Your task to perform on an android device: Go to Yahoo.com Image 0: 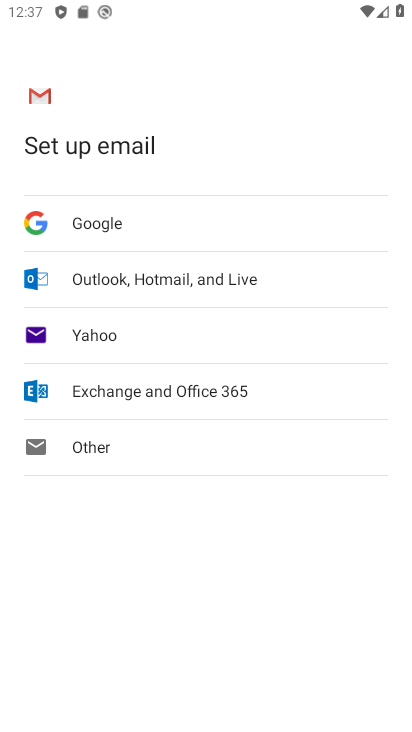
Step 0: press home button
Your task to perform on an android device: Go to Yahoo.com Image 1: 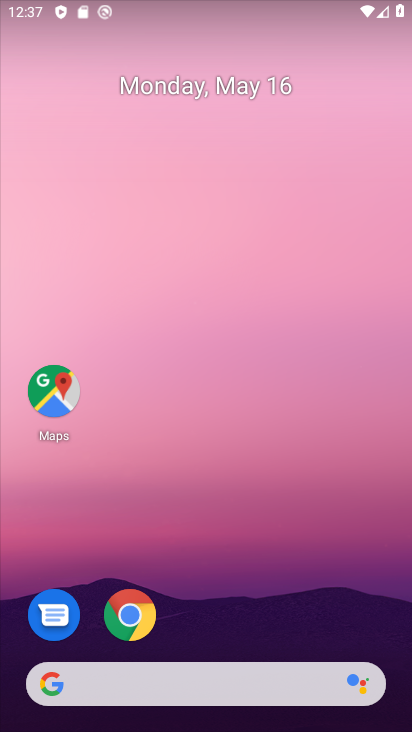
Step 1: click (193, 691)
Your task to perform on an android device: Go to Yahoo.com Image 2: 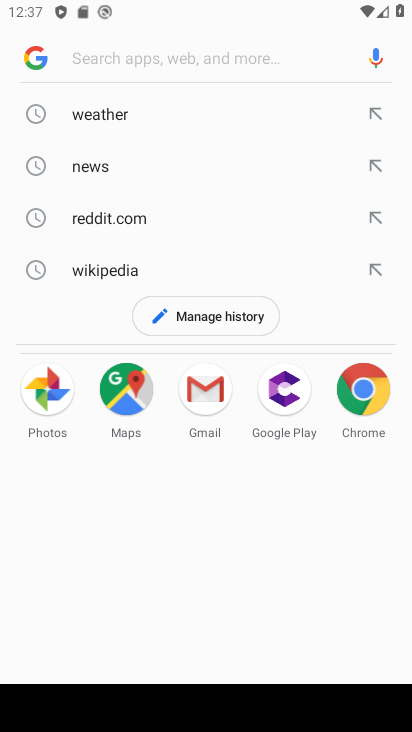
Step 2: press home button
Your task to perform on an android device: Go to Yahoo.com Image 3: 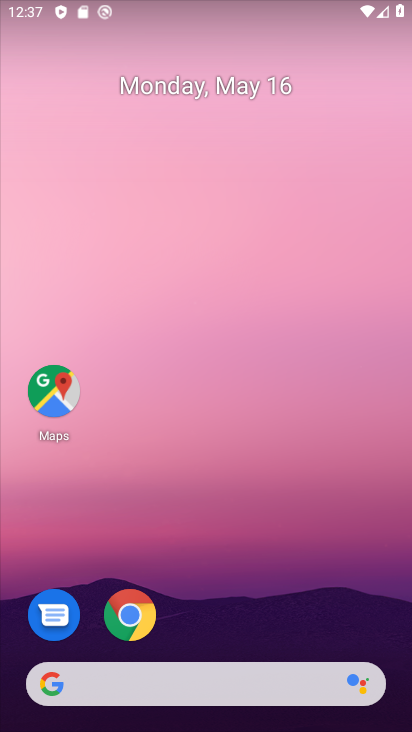
Step 3: click (131, 605)
Your task to perform on an android device: Go to Yahoo.com Image 4: 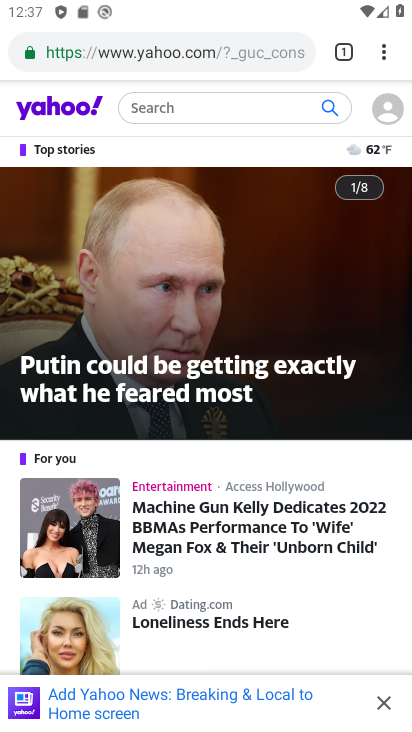
Step 4: task complete